Your task to perform on an android device: What's on my calendar tomorrow? Image 0: 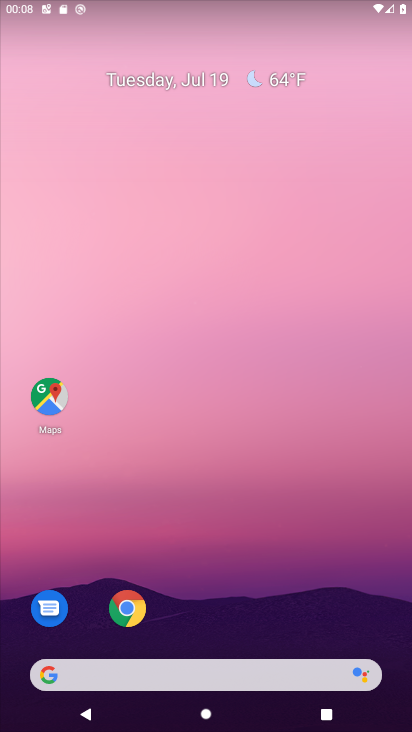
Step 0: drag from (218, 571) to (281, 46)
Your task to perform on an android device: What's on my calendar tomorrow? Image 1: 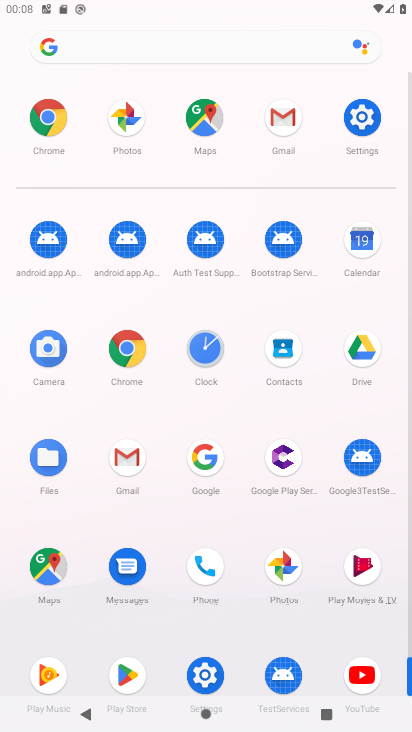
Step 1: click (359, 251)
Your task to perform on an android device: What's on my calendar tomorrow? Image 2: 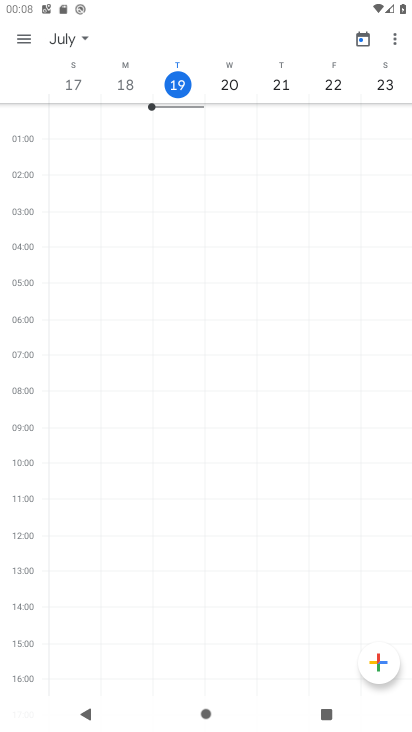
Step 2: click (224, 83)
Your task to perform on an android device: What's on my calendar tomorrow? Image 3: 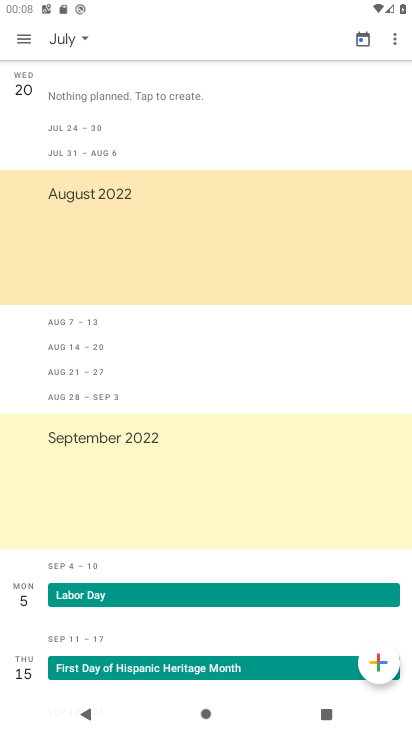
Step 3: click (14, 49)
Your task to perform on an android device: What's on my calendar tomorrow? Image 4: 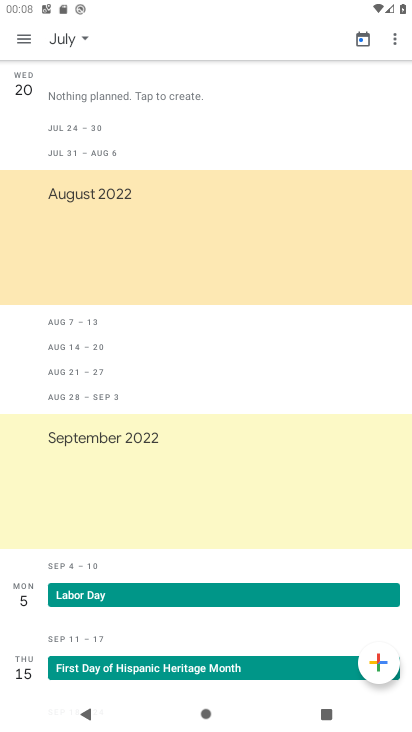
Step 4: click (28, 40)
Your task to perform on an android device: What's on my calendar tomorrow? Image 5: 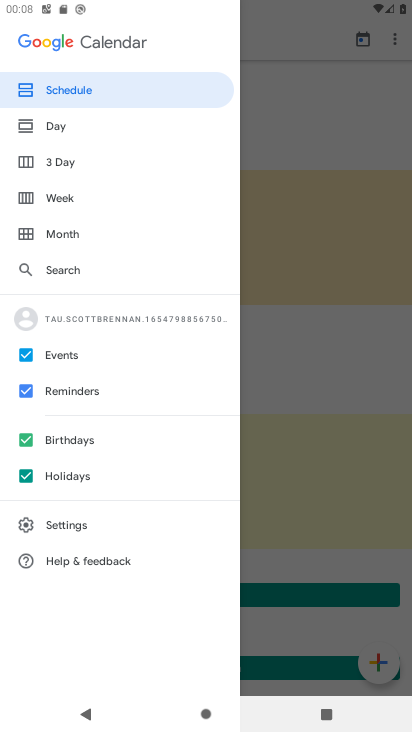
Step 5: click (74, 133)
Your task to perform on an android device: What's on my calendar tomorrow? Image 6: 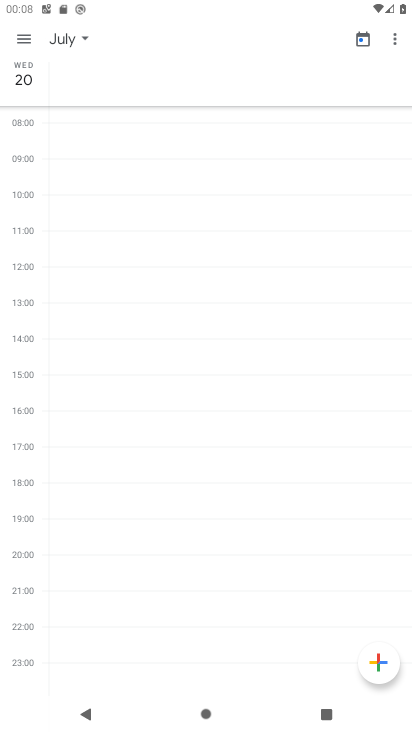
Step 6: task complete